Your task to perform on an android device: open app "Expedia: Hotels, Flights & Car" Image 0: 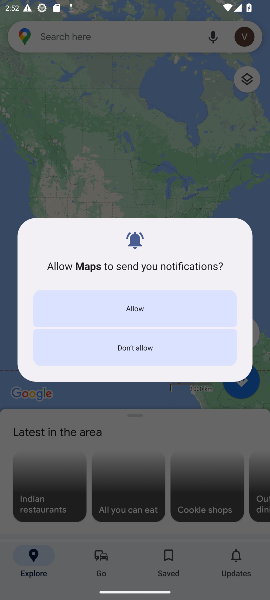
Step 0: click (191, 311)
Your task to perform on an android device: open app "Expedia: Hotels, Flights & Car" Image 1: 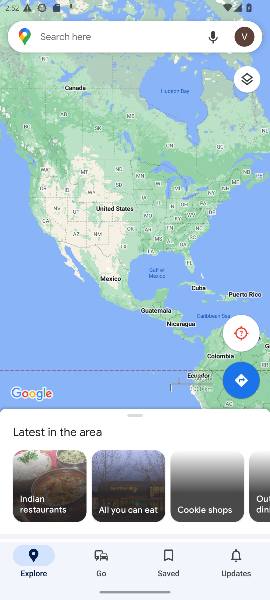
Step 1: press home button
Your task to perform on an android device: open app "Expedia: Hotels, Flights & Car" Image 2: 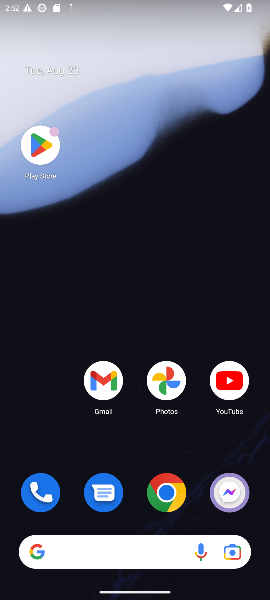
Step 2: click (50, 156)
Your task to perform on an android device: open app "Expedia: Hotels, Flights & Car" Image 3: 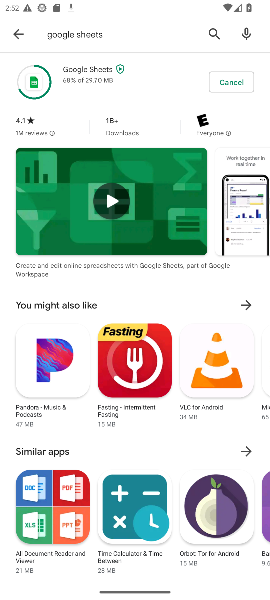
Step 3: click (222, 36)
Your task to perform on an android device: open app "Expedia: Hotels, Flights & Car" Image 4: 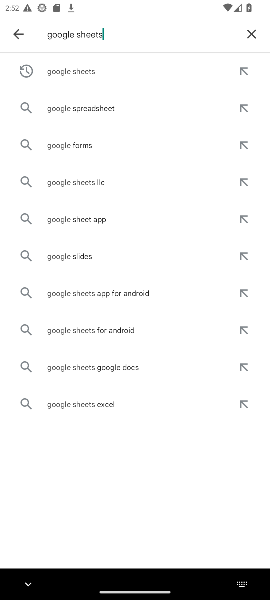
Step 4: click (248, 31)
Your task to perform on an android device: open app "Expedia: Hotels, Flights & Car" Image 5: 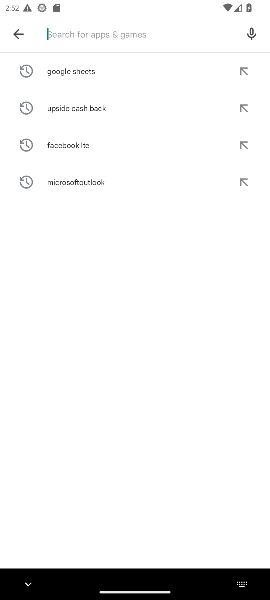
Step 5: type "expedia"
Your task to perform on an android device: open app "Expedia: Hotels, Flights & Car" Image 6: 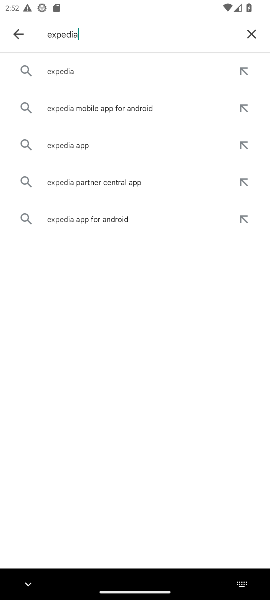
Step 6: type "99"
Your task to perform on an android device: open app "Expedia: Hotels, Flights & Car" Image 7: 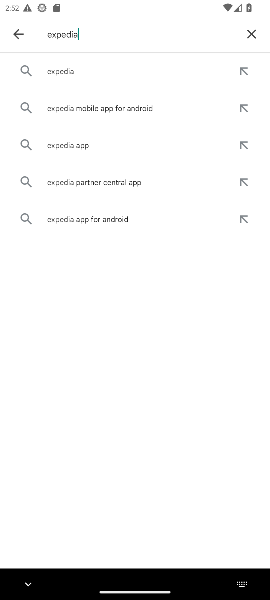
Step 7: click (61, 61)
Your task to perform on an android device: open app "Expedia: Hotels, Flights & Car" Image 8: 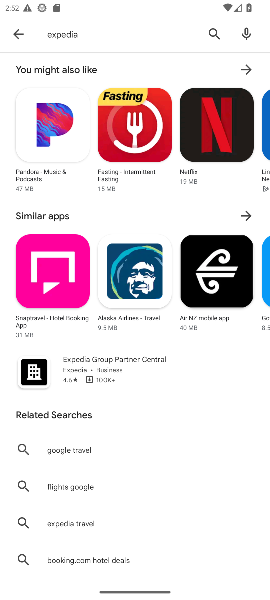
Step 8: task complete